Your task to perform on an android device: toggle airplane mode Image 0: 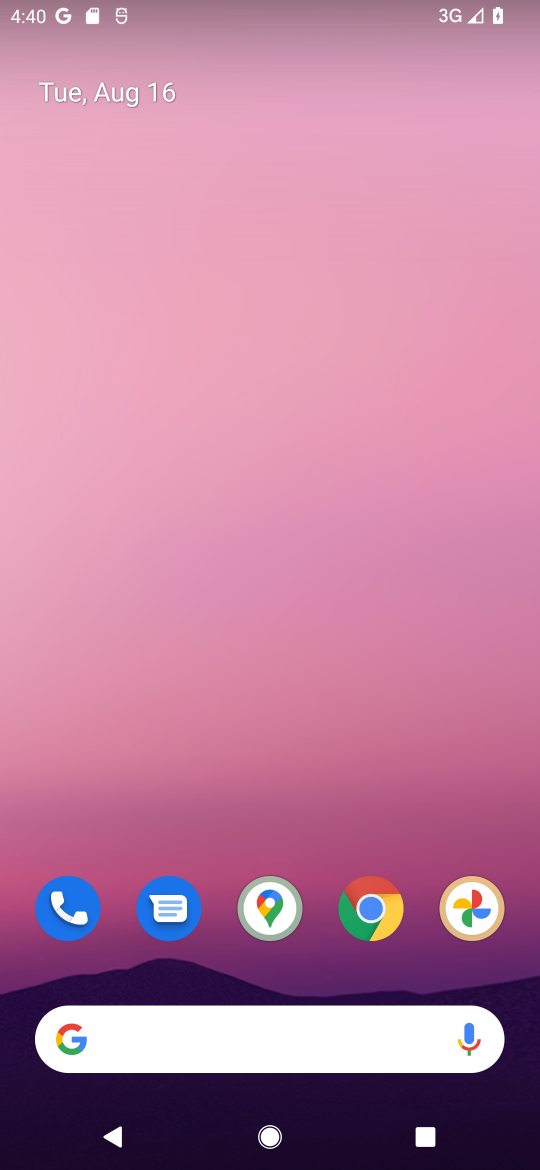
Step 0: drag from (467, 9) to (265, 752)
Your task to perform on an android device: toggle airplane mode Image 1: 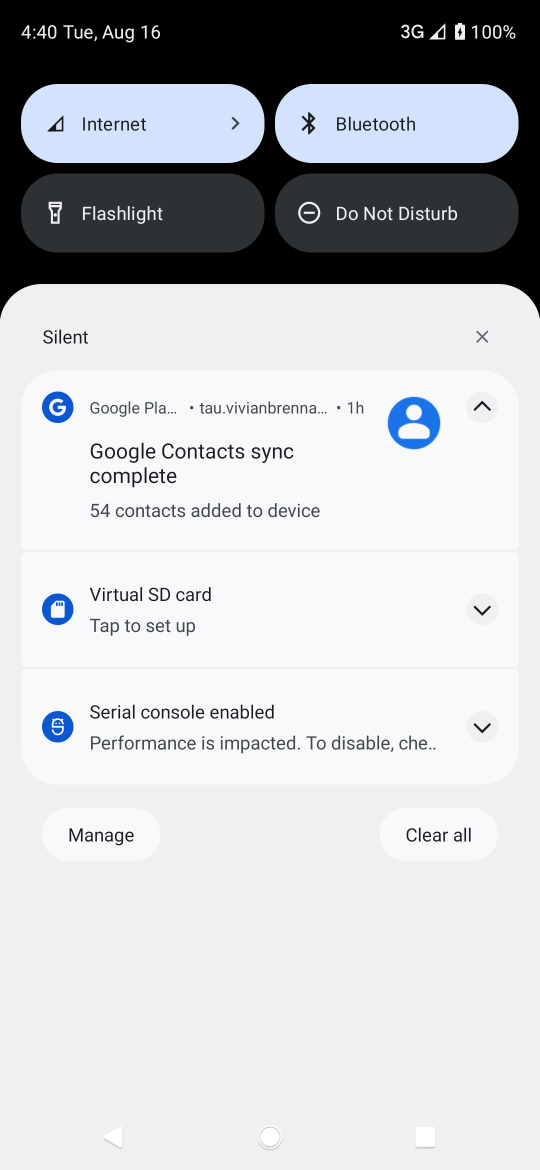
Step 1: drag from (277, 243) to (265, 1015)
Your task to perform on an android device: toggle airplane mode Image 2: 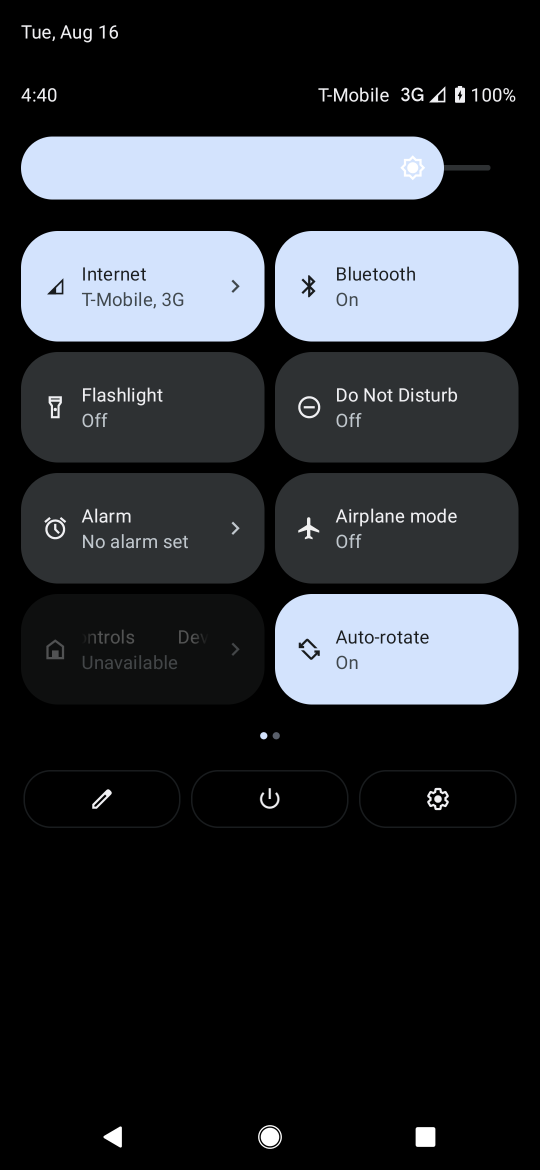
Step 2: click (363, 537)
Your task to perform on an android device: toggle airplane mode Image 3: 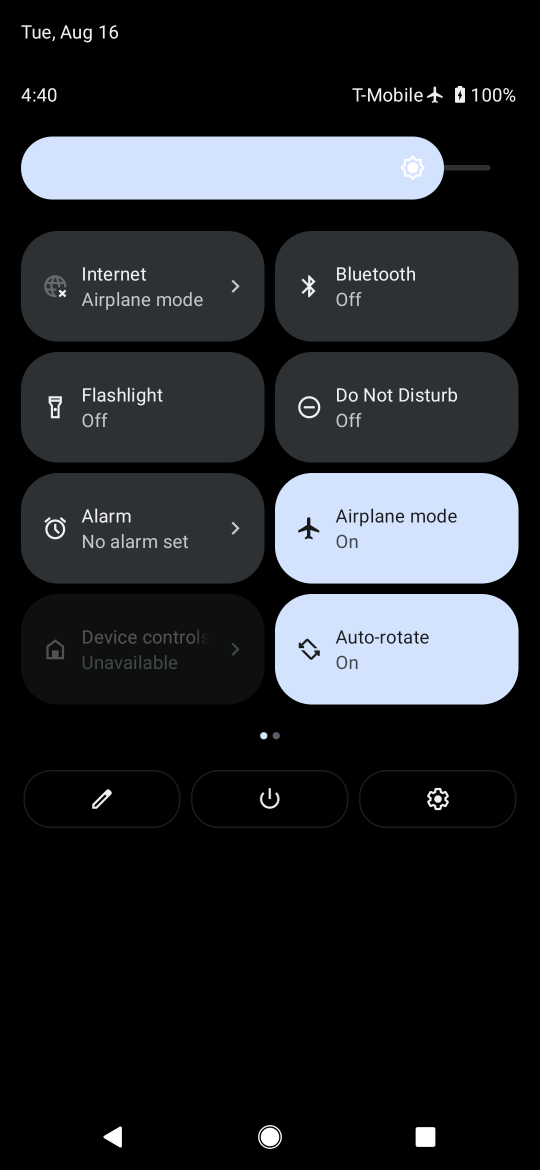
Step 3: task complete